Your task to perform on an android device: Open calendar and show me the fourth week of next month Image 0: 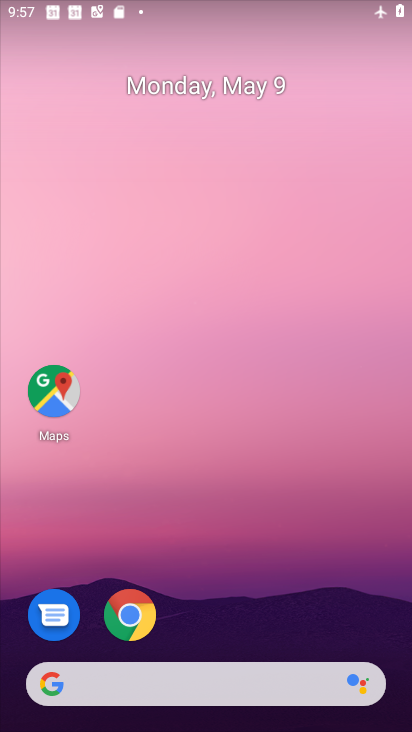
Step 0: drag from (256, 719) to (191, 254)
Your task to perform on an android device: Open calendar and show me the fourth week of next month Image 1: 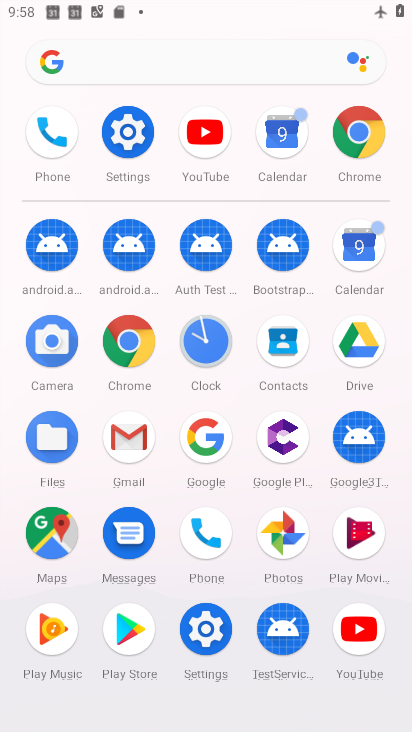
Step 1: click (352, 257)
Your task to perform on an android device: Open calendar and show me the fourth week of next month Image 2: 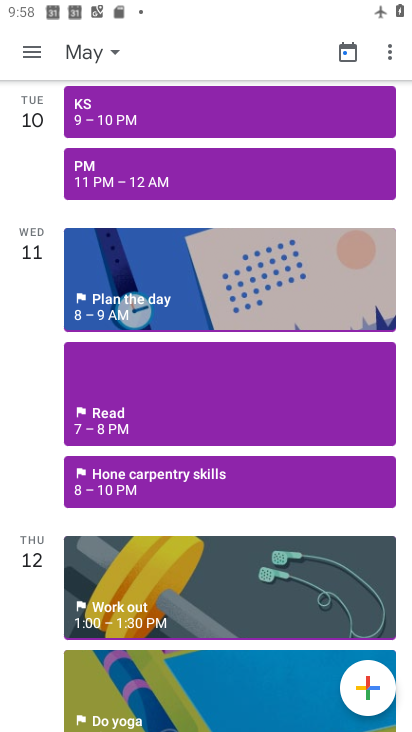
Step 2: click (42, 42)
Your task to perform on an android device: Open calendar and show me the fourth week of next month Image 3: 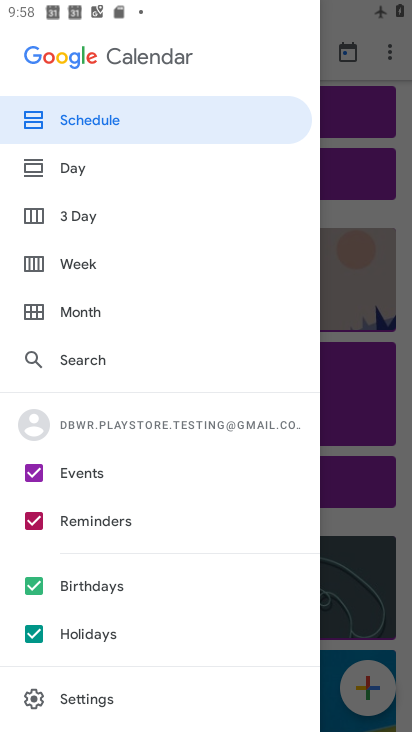
Step 3: click (96, 322)
Your task to perform on an android device: Open calendar and show me the fourth week of next month Image 4: 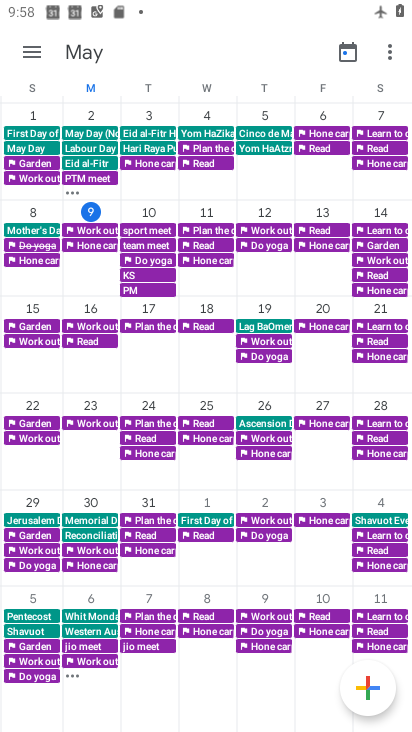
Step 4: drag from (391, 389) to (12, 356)
Your task to perform on an android device: Open calendar and show me the fourth week of next month Image 5: 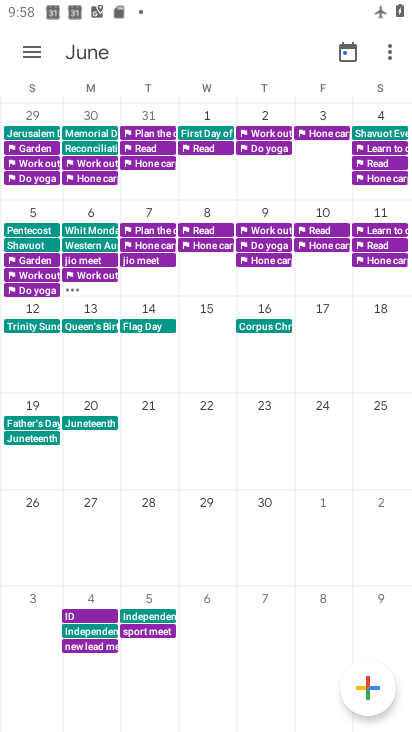
Step 5: click (92, 443)
Your task to perform on an android device: Open calendar and show me the fourth week of next month Image 6: 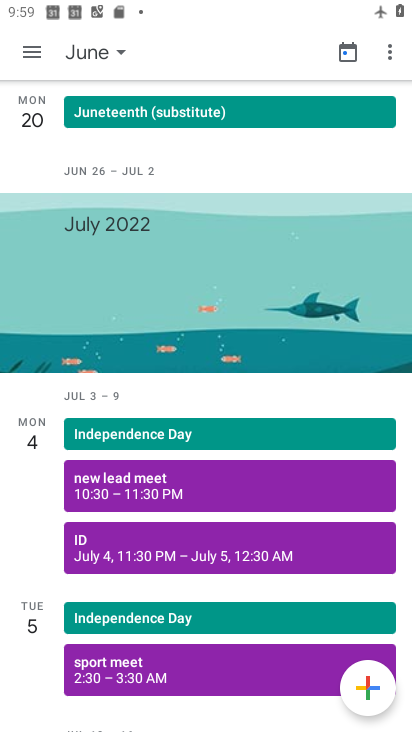
Step 6: task complete